Your task to perform on an android device: remove spam from my inbox in the gmail app Image 0: 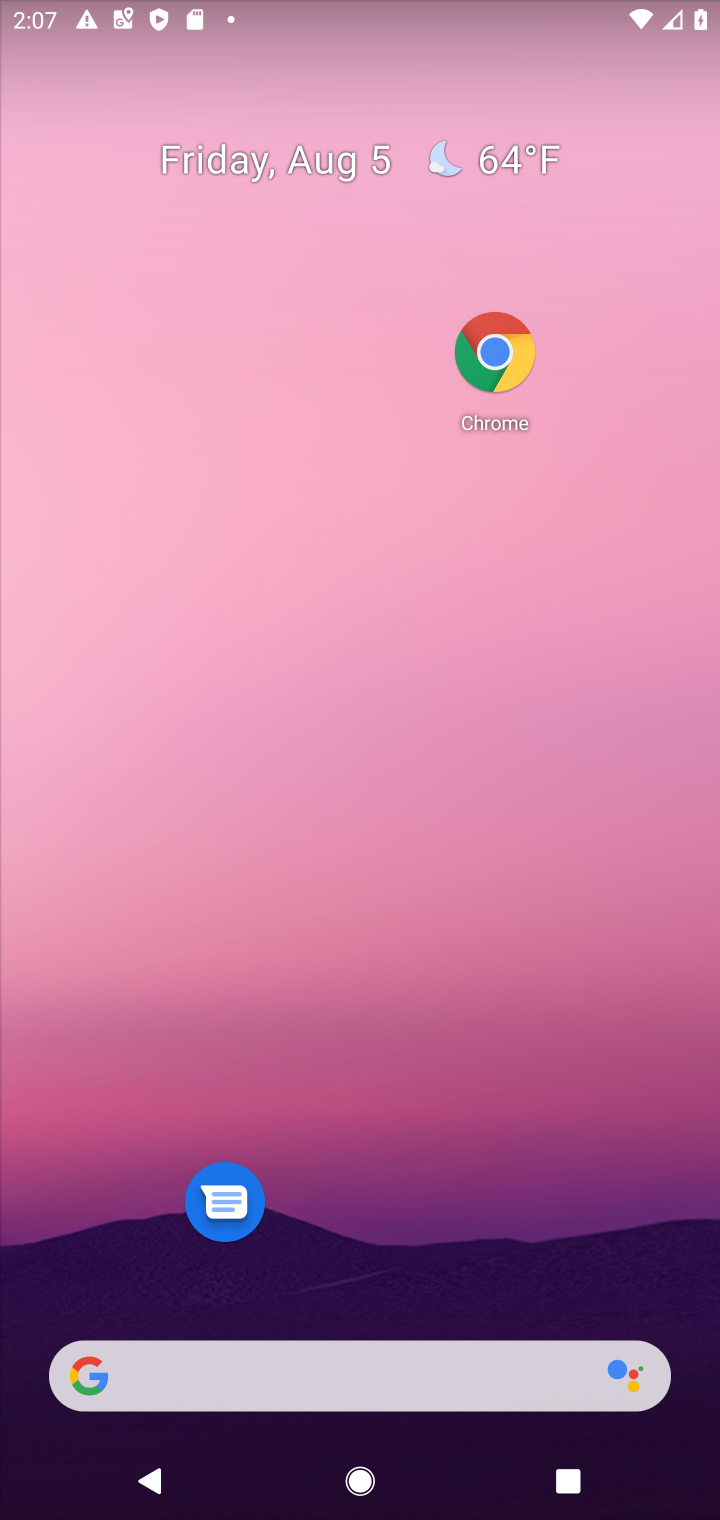
Step 0: drag from (541, 1206) to (389, 336)
Your task to perform on an android device: remove spam from my inbox in the gmail app Image 1: 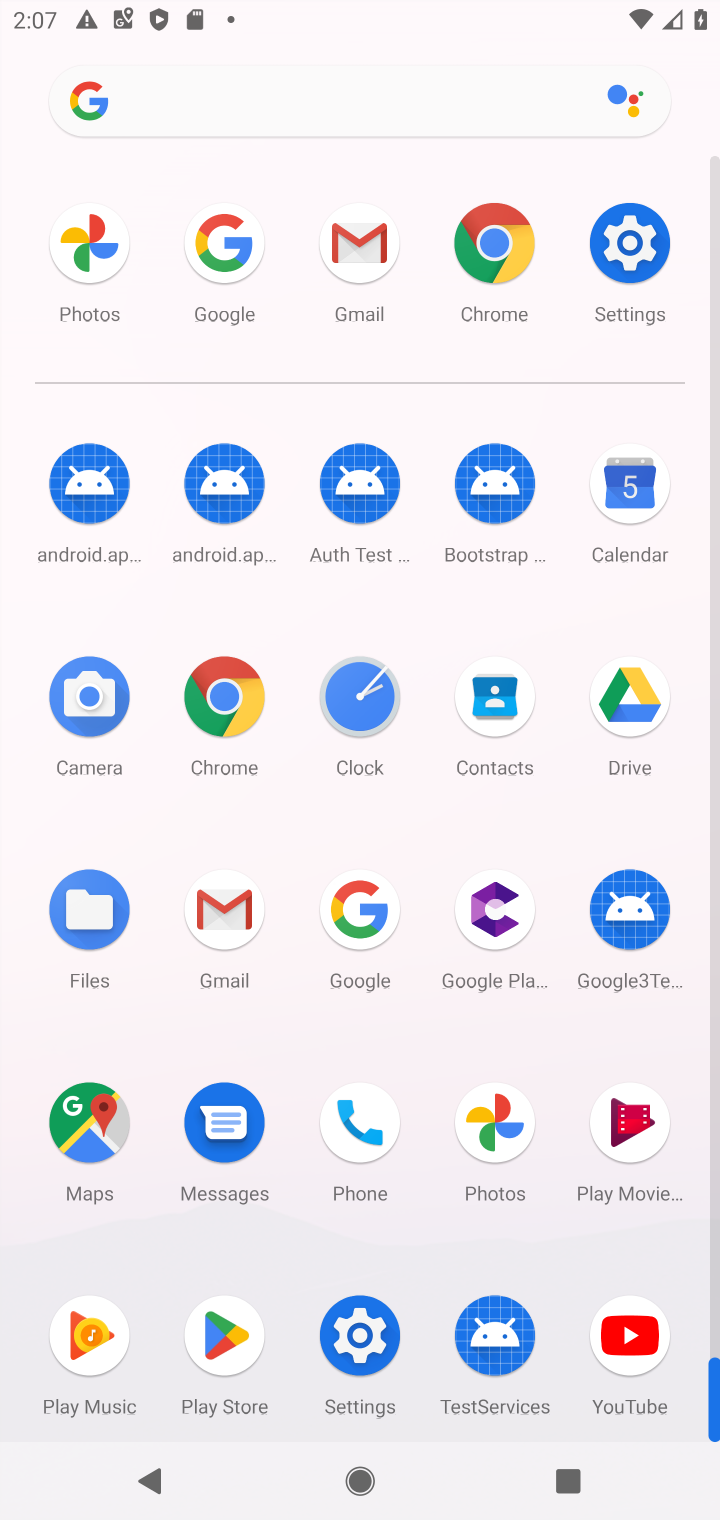
Step 1: click (239, 898)
Your task to perform on an android device: remove spam from my inbox in the gmail app Image 2: 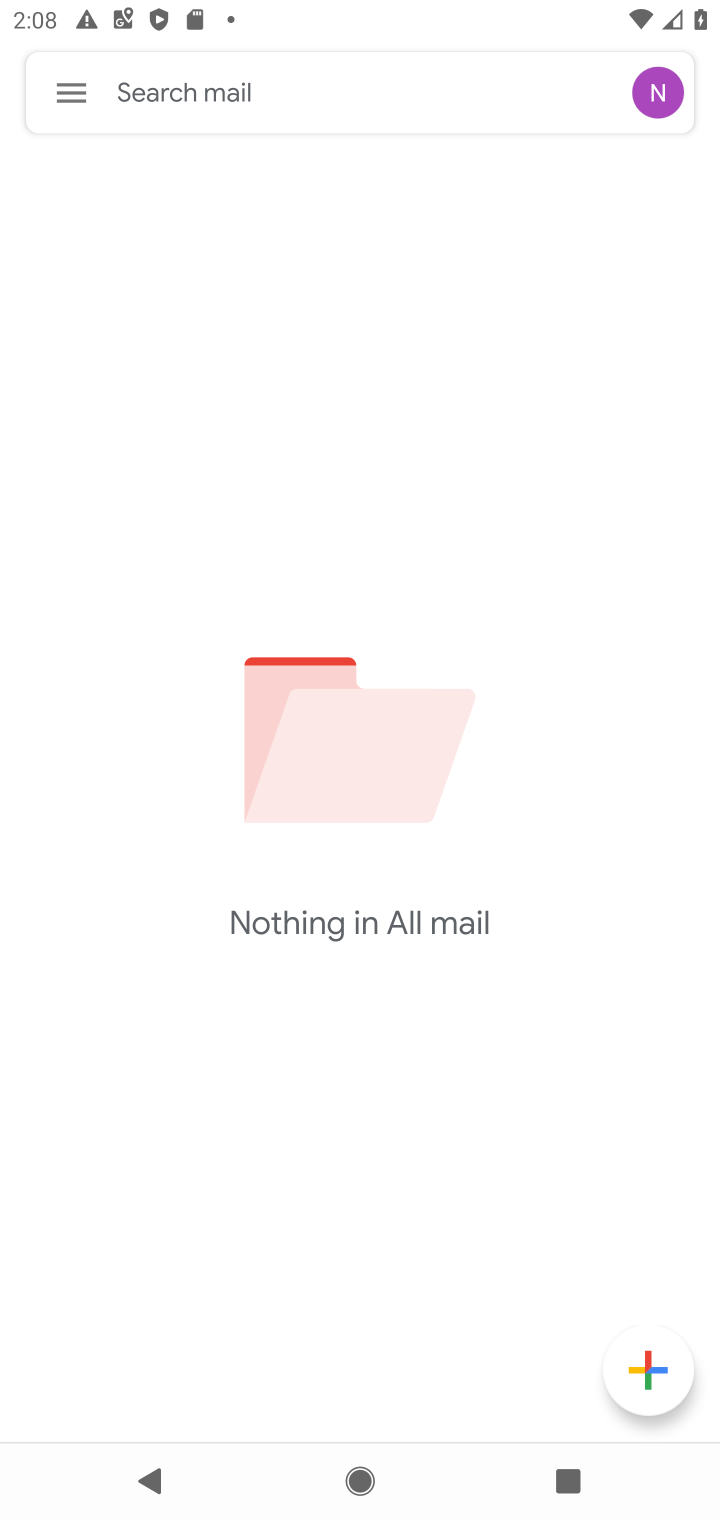
Step 2: click (83, 85)
Your task to perform on an android device: remove spam from my inbox in the gmail app Image 3: 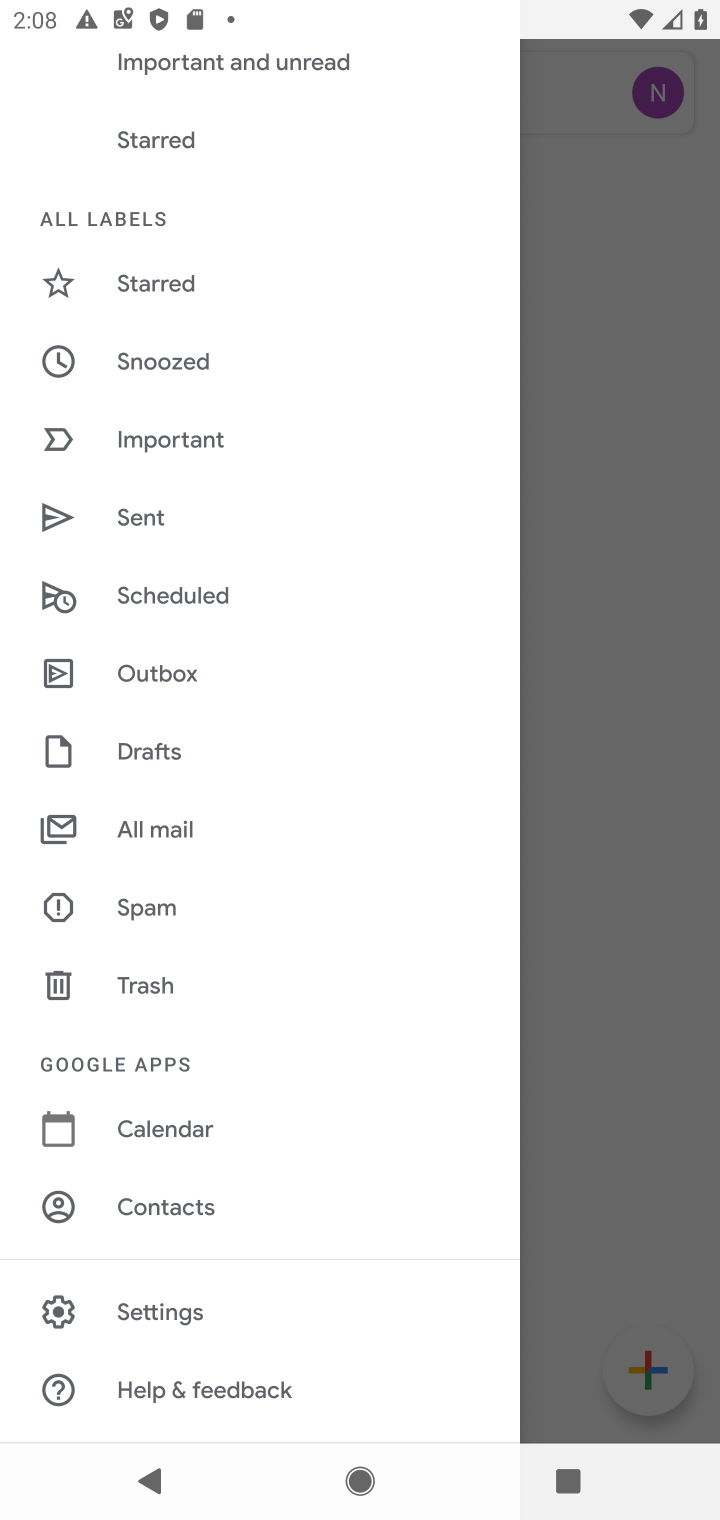
Step 3: drag from (173, 165) to (302, 926)
Your task to perform on an android device: remove spam from my inbox in the gmail app Image 4: 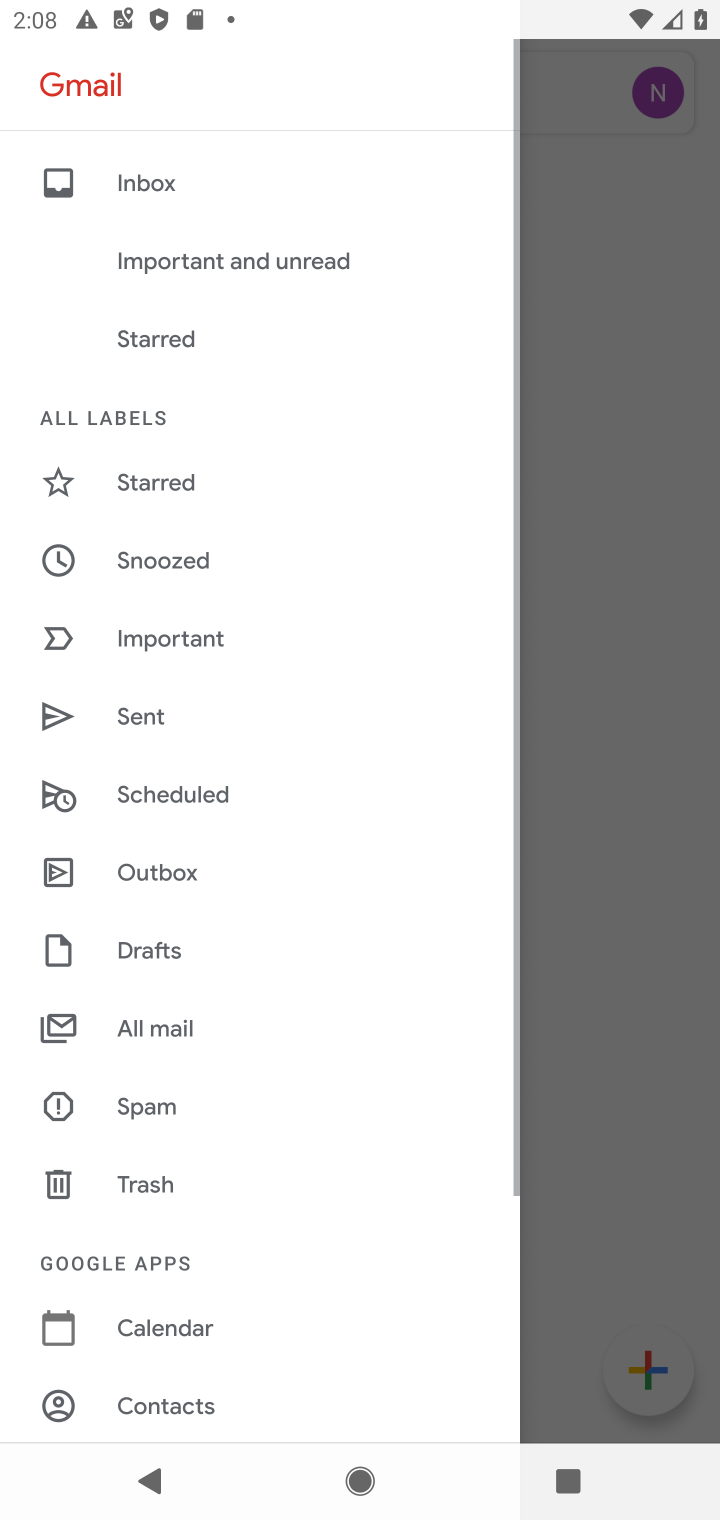
Step 4: click (155, 181)
Your task to perform on an android device: remove spam from my inbox in the gmail app Image 5: 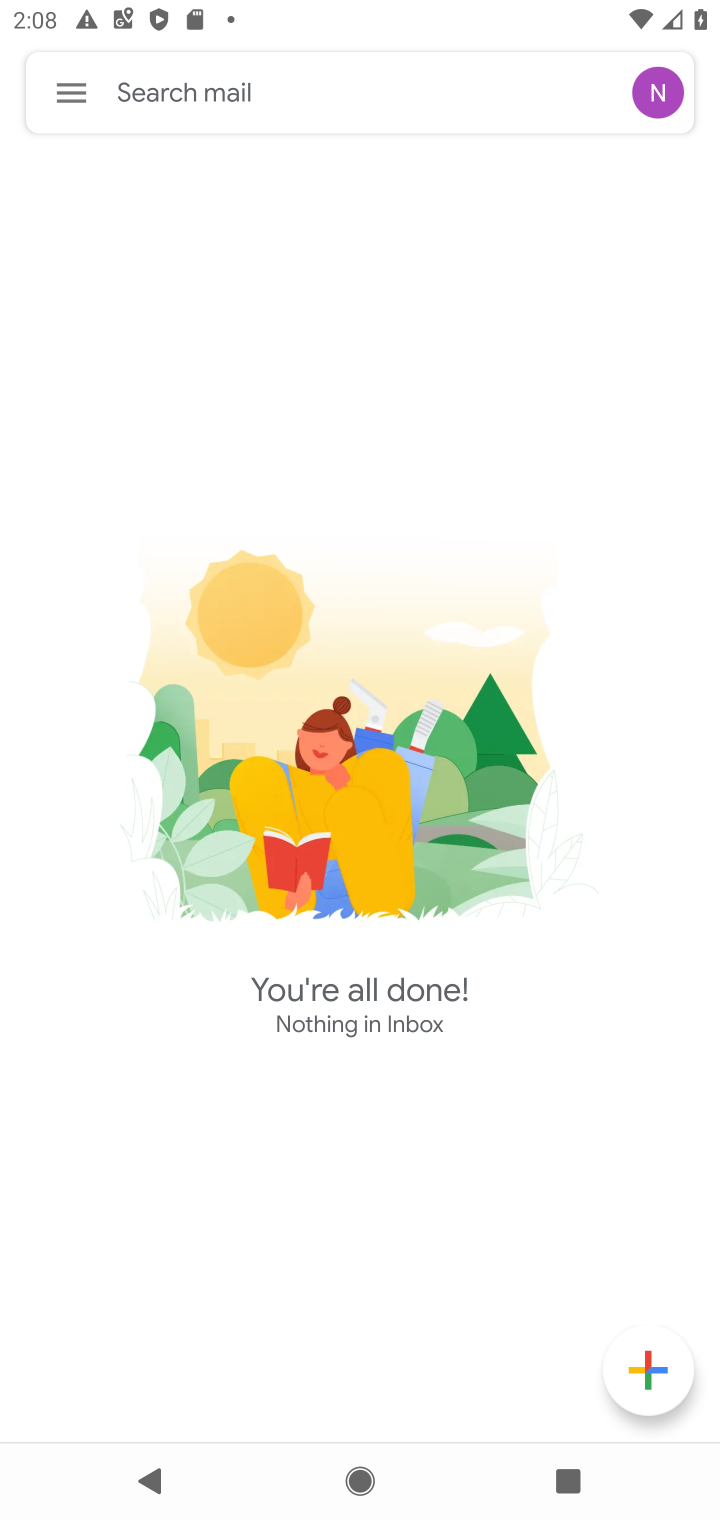
Step 5: task complete